Your task to perform on an android device: What is the recent news? Image 0: 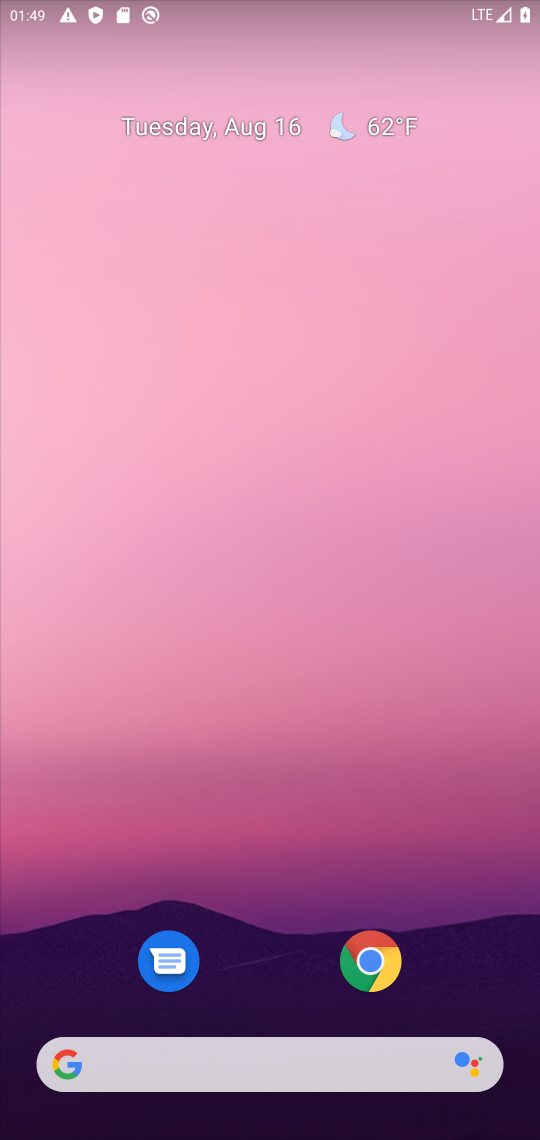
Step 0: press home button
Your task to perform on an android device: What is the recent news? Image 1: 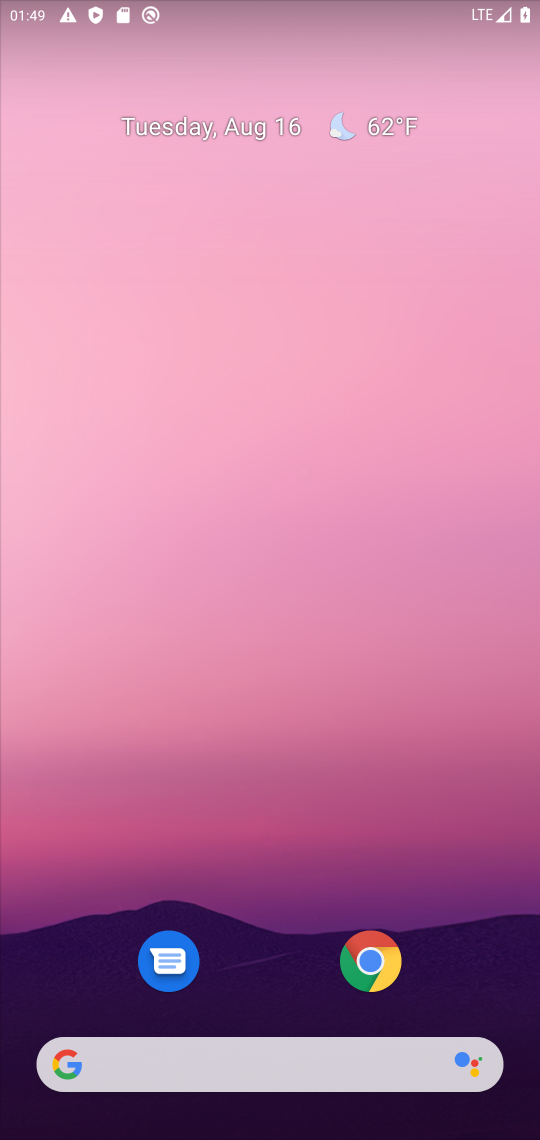
Step 1: click (382, 960)
Your task to perform on an android device: What is the recent news? Image 2: 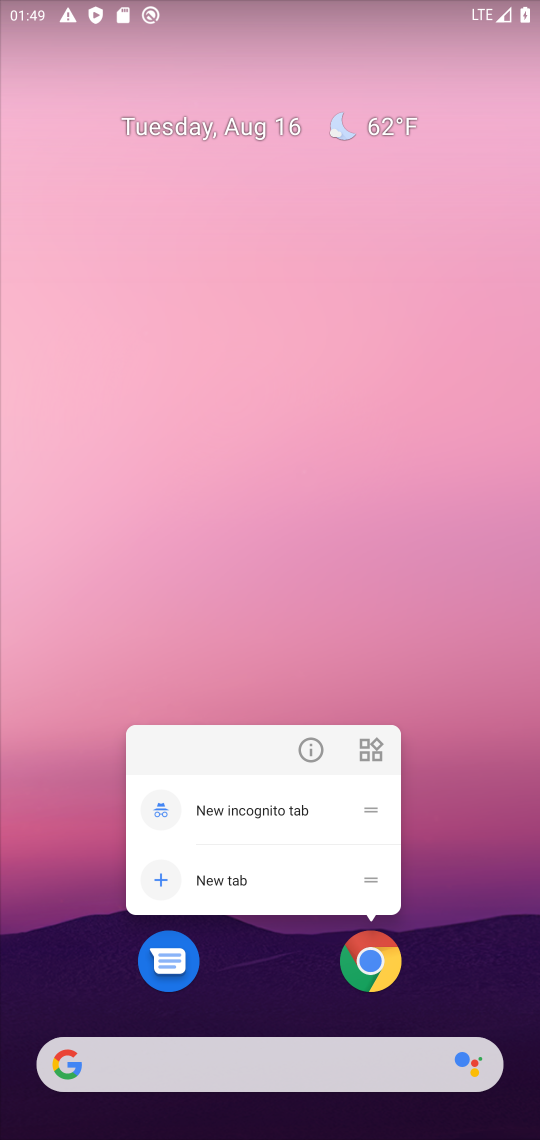
Step 2: click (379, 957)
Your task to perform on an android device: What is the recent news? Image 3: 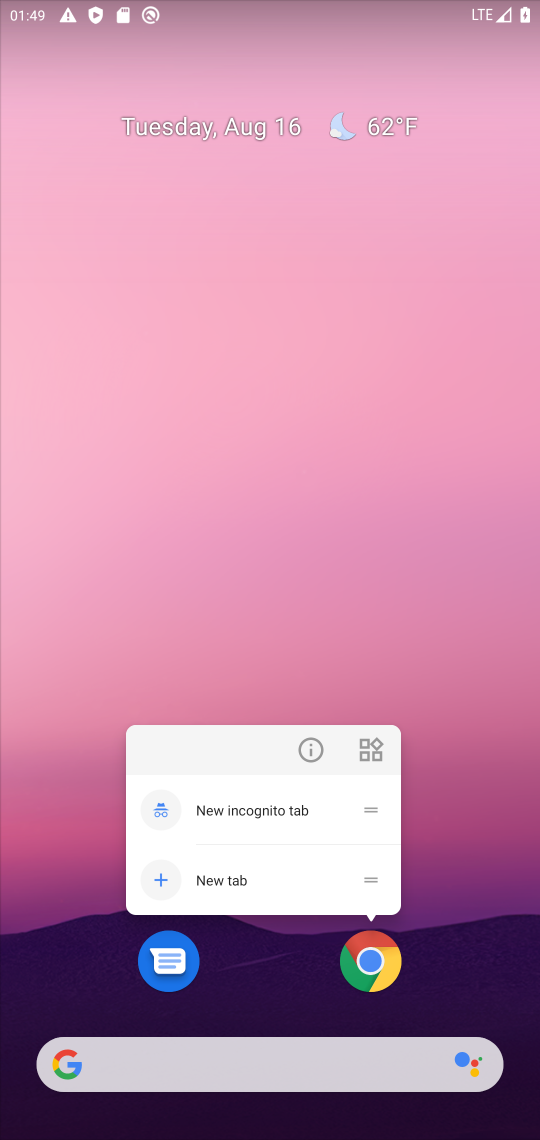
Step 3: click (379, 957)
Your task to perform on an android device: What is the recent news? Image 4: 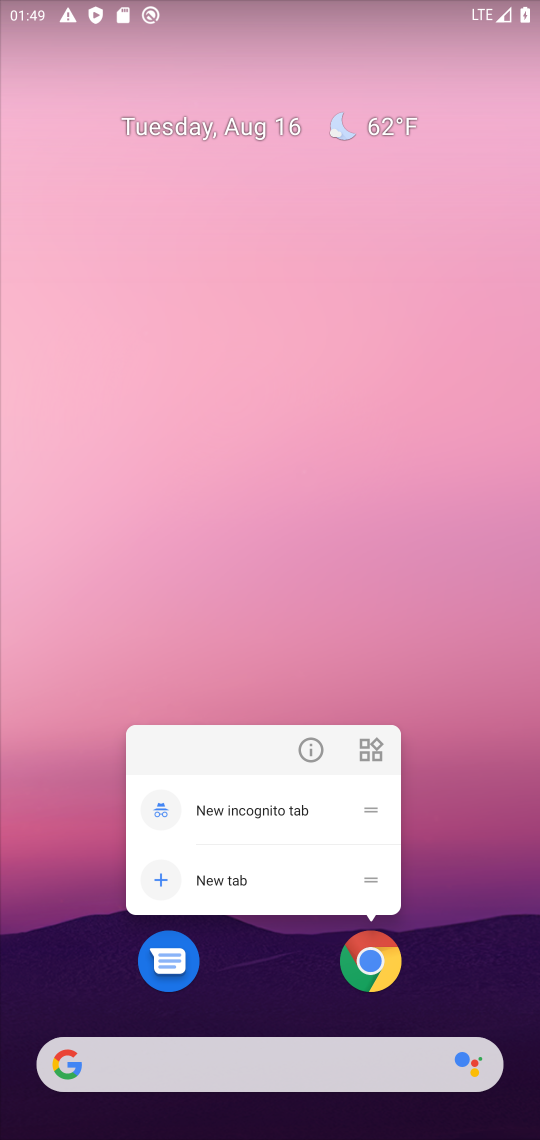
Step 4: click (361, 957)
Your task to perform on an android device: What is the recent news? Image 5: 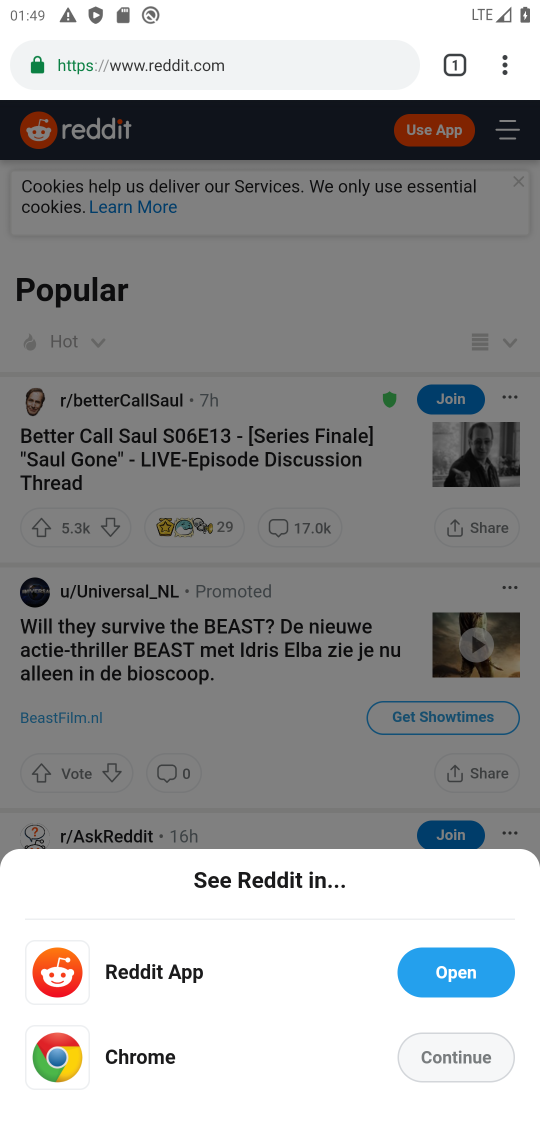
Step 5: click (282, 58)
Your task to perform on an android device: What is the recent news? Image 6: 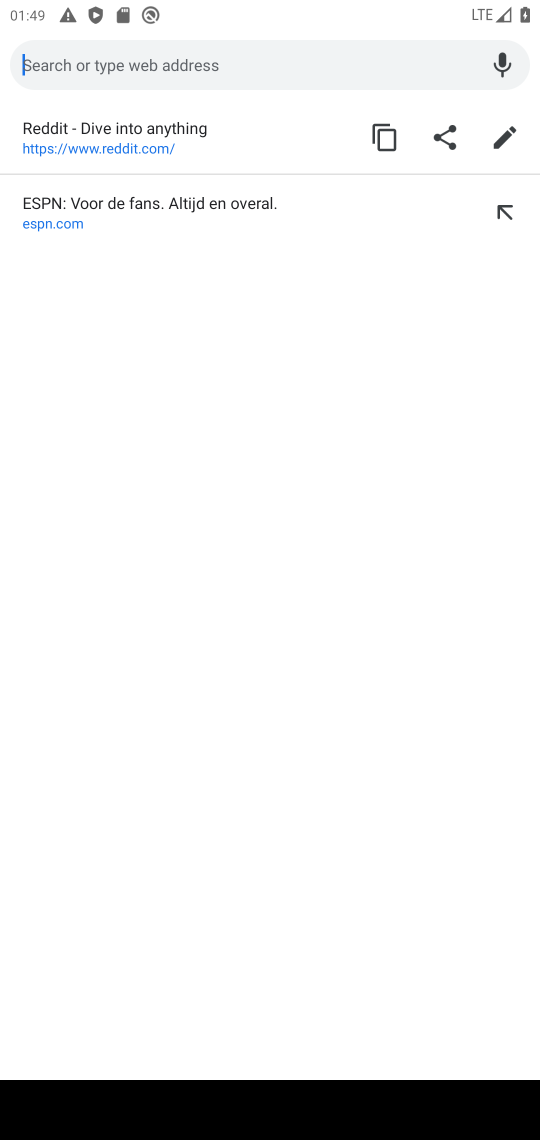
Step 6: type "What is the recent news?"
Your task to perform on an android device: What is the recent news? Image 7: 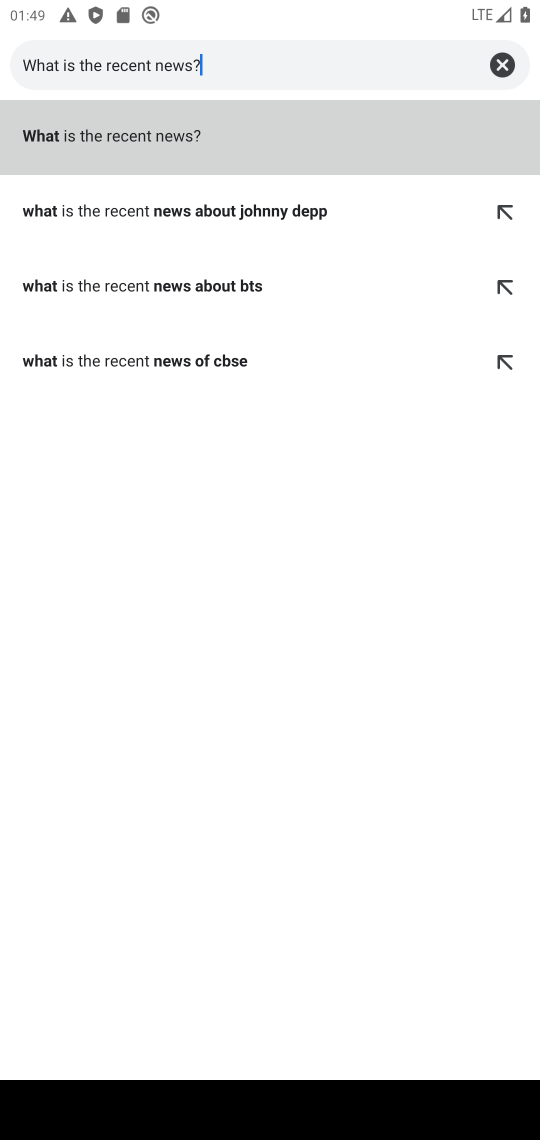
Step 7: click (245, 123)
Your task to perform on an android device: What is the recent news? Image 8: 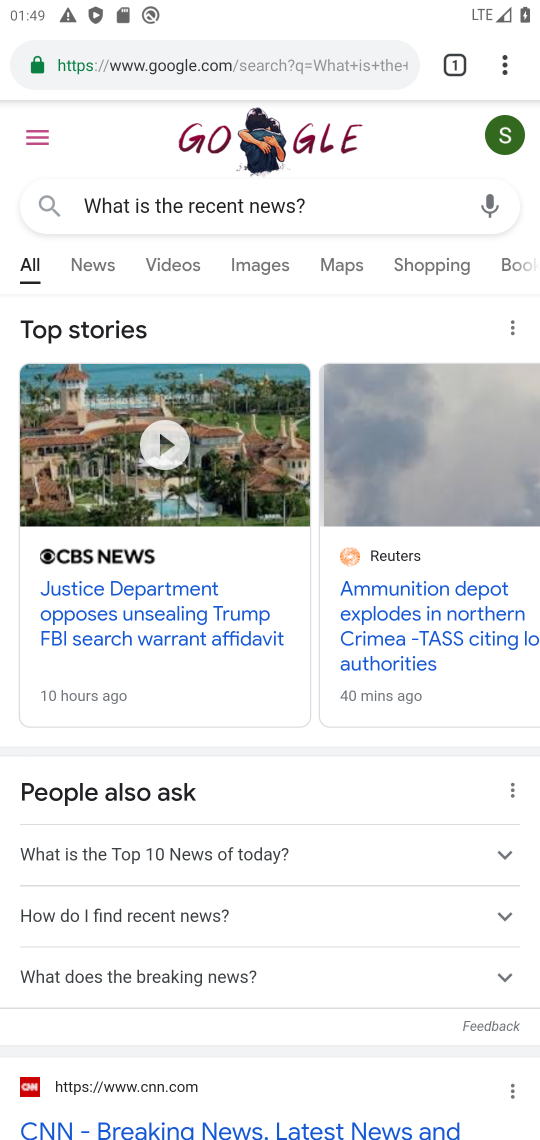
Step 8: task complete